Your task to perform on an android device: empty trash in google photos Image 0: 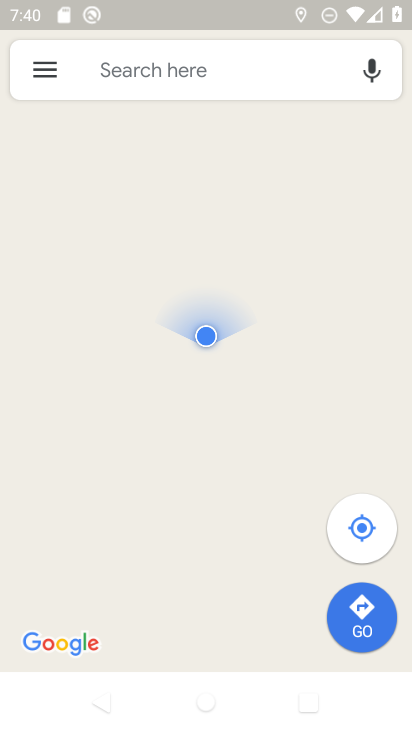
Step 0: press home button
Your task to perform on an android device: empty trash in google photos Image 1: 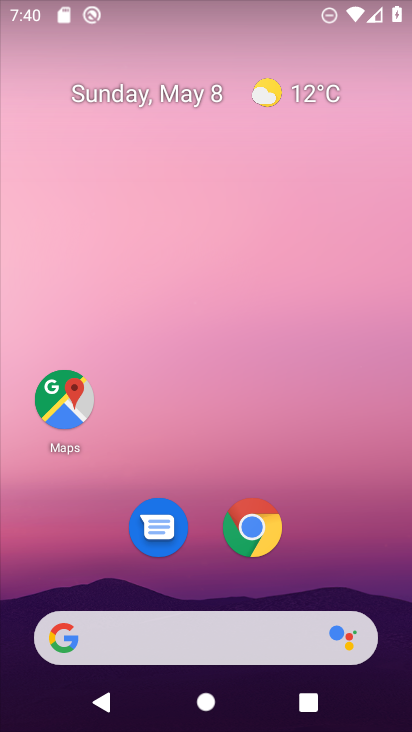
Step 1: drag from (338, 535) to (206, 127)
Your task to perform on an android device: empty trash in google photos Image 2: 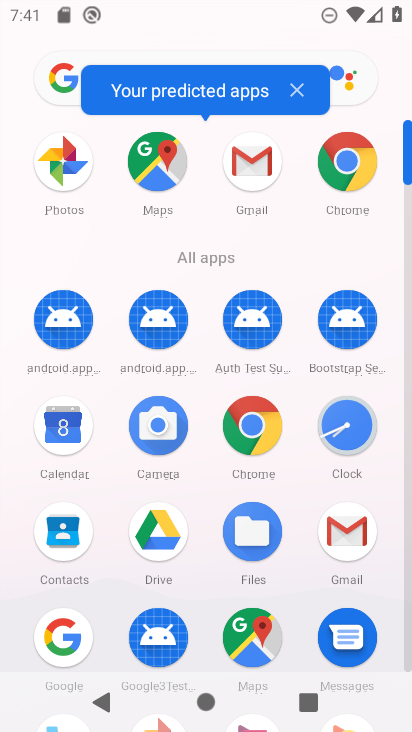
Step 2: click (53, 157)
Your task to perform on an android device: empty trash in google photos Image 3: 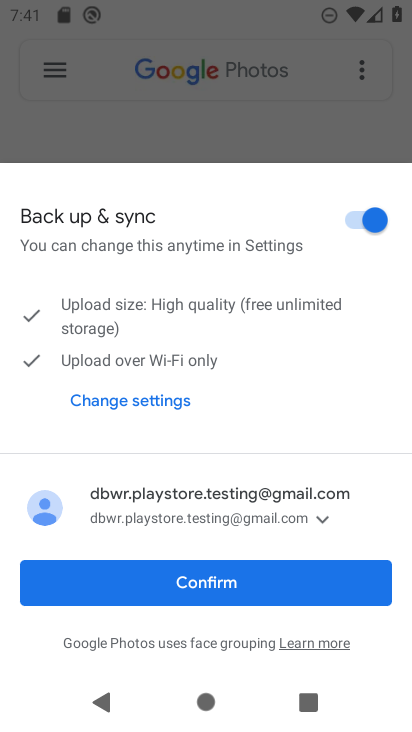
Step 3: click (272, 586)
Your task to perform on an android device: empty trash in google photos Image 4: 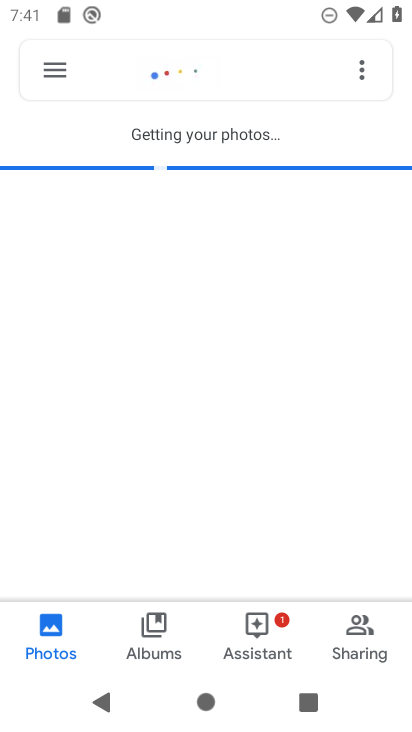
Step 4: click (60, 65)
Your task to perform on an android device: empty trash in google photos Image 5: 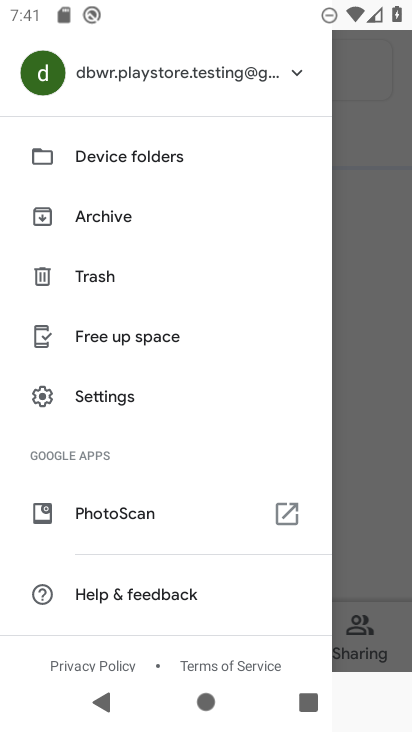
Step 5: click (106, 271)
Your task to perform on an android device: empty trash in google photos Image 6: 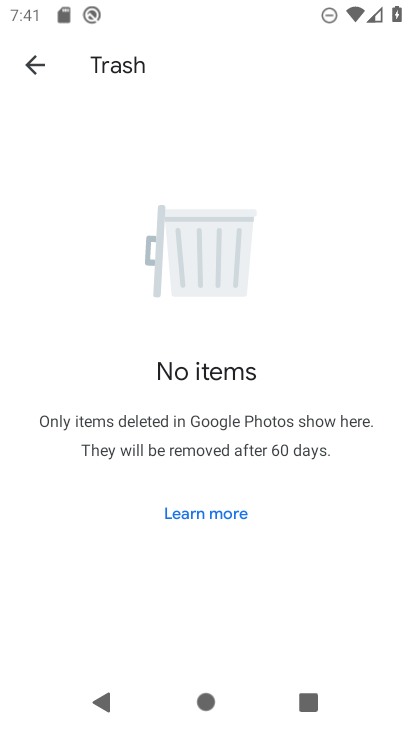
Step 6: task complete